Your task to perform on an android device: check out phone information Image 0: 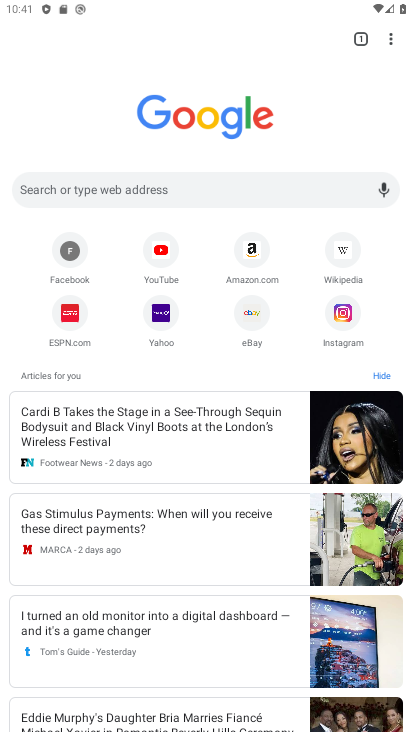
Step 0: press home button
Your task to perform on an android device: check out phone information Image 1: 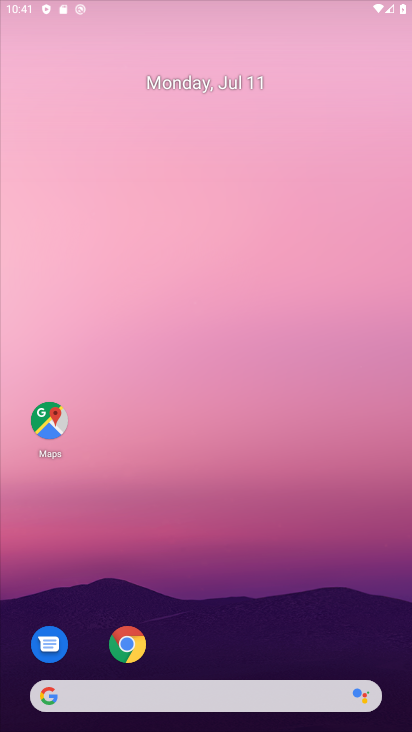
Step 1: drag from (338, 622) to (226, 70)
Your task to perform on an android device: check out phone information Image 2: 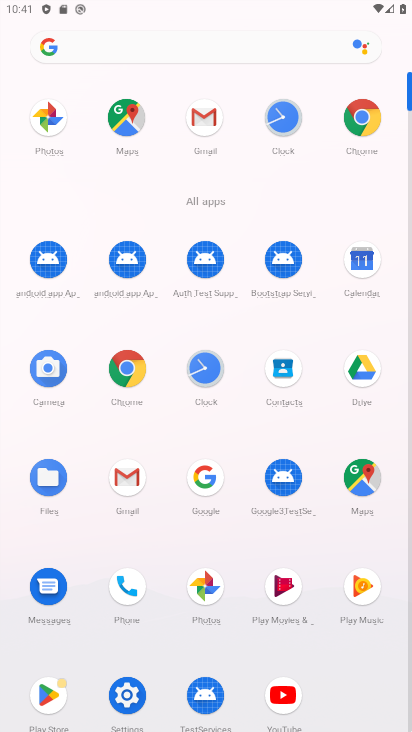
Step 2: click (120, 692)
Your task to perform on an android device: check out phone information Image 3: 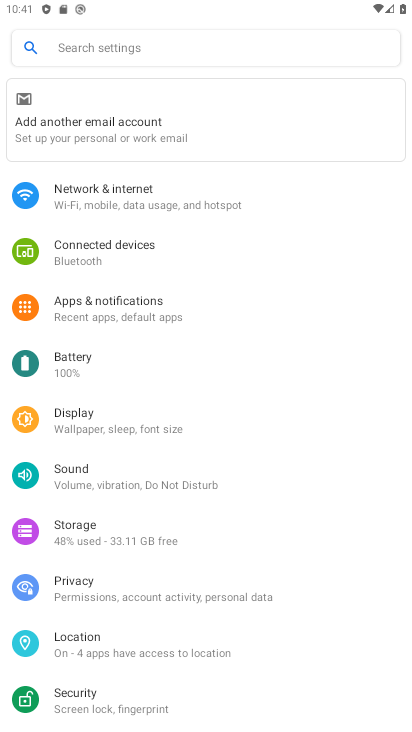
Step 3: drag from (118, 574) to (132, 139)
Your task to perform on an android device: check out phone information Image 4: 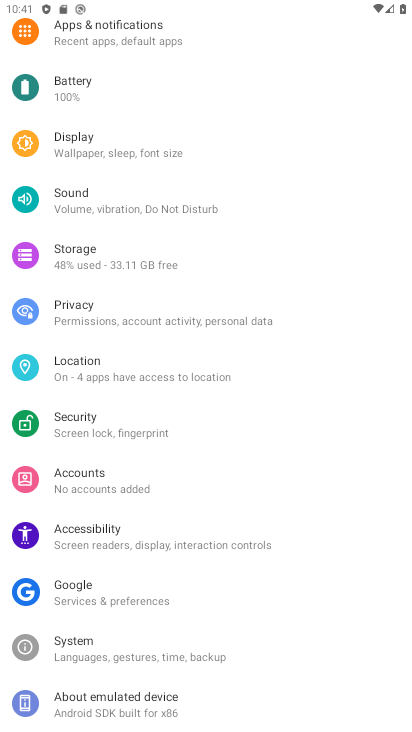
Step 4: drag from (162, 595) to (193, 68)
Your task to perform on an android device: check out phone information Image 5: 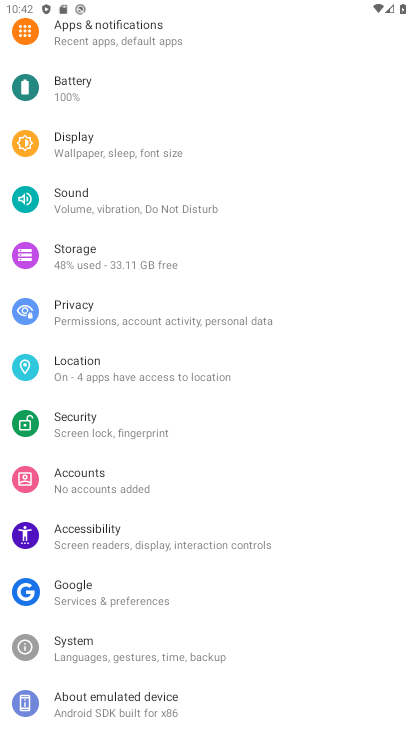
Step 5: click (108, 702)
Your task to perform on an android device: check out phone information Image 6: 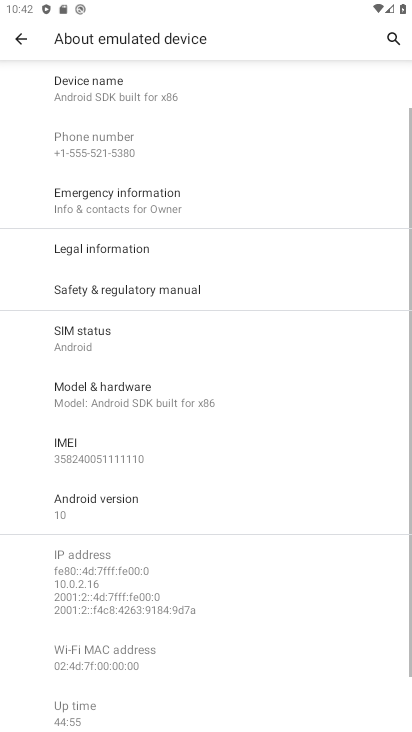
Step 6: task complete